Your task to perform on an android device: turn on priority inbox in the gmail app Image 0: 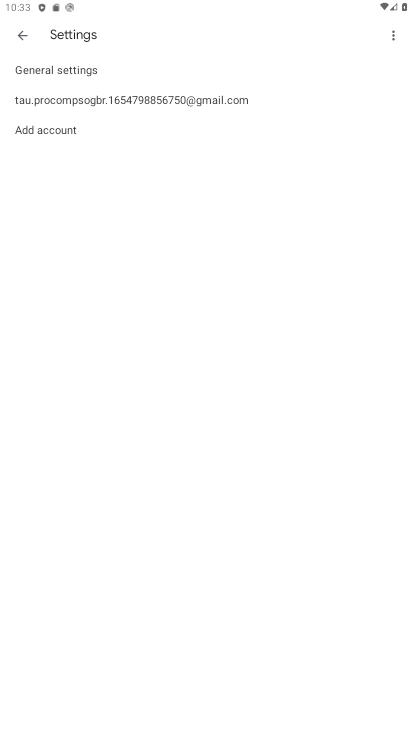
Step 0: click (83, 101)
Your task to perform on an android device: turn on priority inbox in the gmail app Image 1: 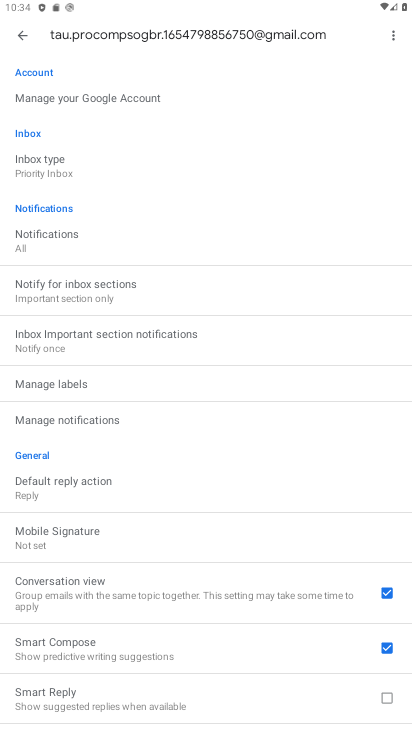
Step 1: task complete